Your task to perform on an android device: check android version Image 0: 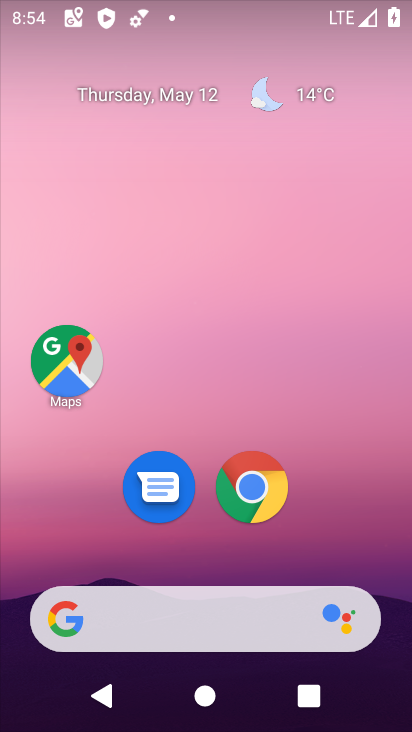
Step 0: press home button
Your task to perform on an android device: check android version Image 1: 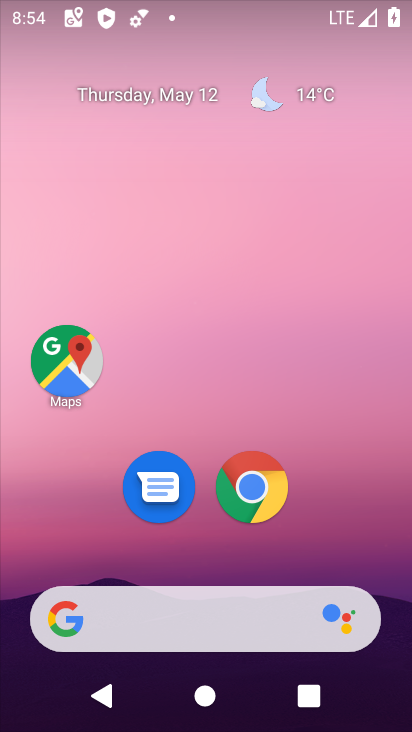
Step 1: drag from (58, 633) to (388, 246)
Your task to perform on an android device: check android version Image 2: 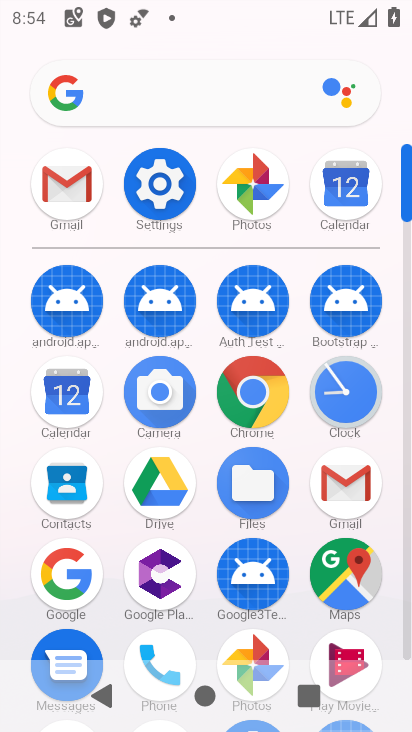
Step 2: click (136, 193)
Your task to perform on an android device: check android version Image 3: 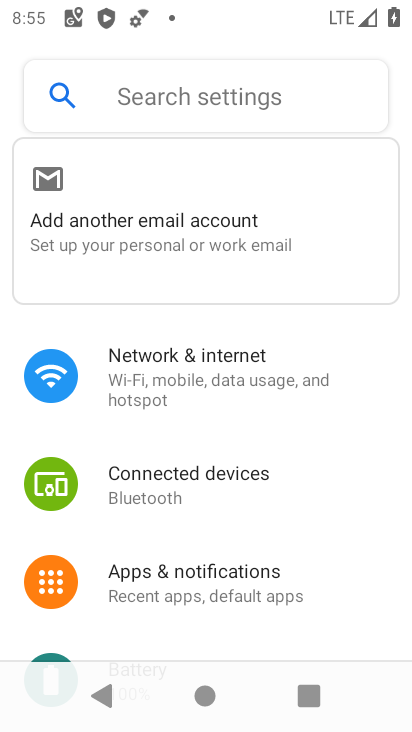
Step 3: drag from (27, 633) to (360, 221)
Your task to perform on an android device: check android version Image 4: 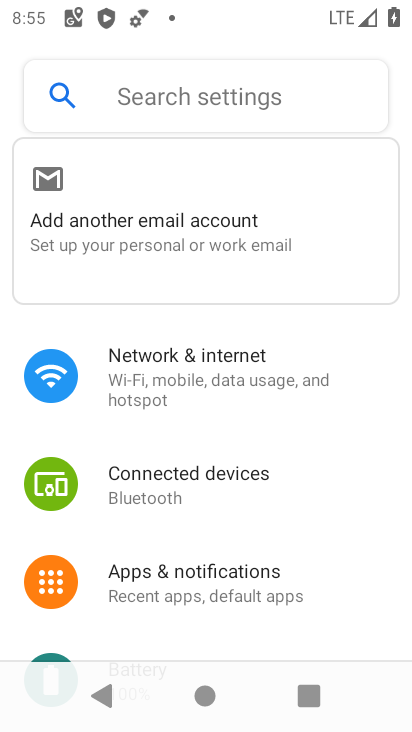
Step 4: drag from (29, 640) to (411, 243)
Your task to perform on an android device: check android version Image 5: 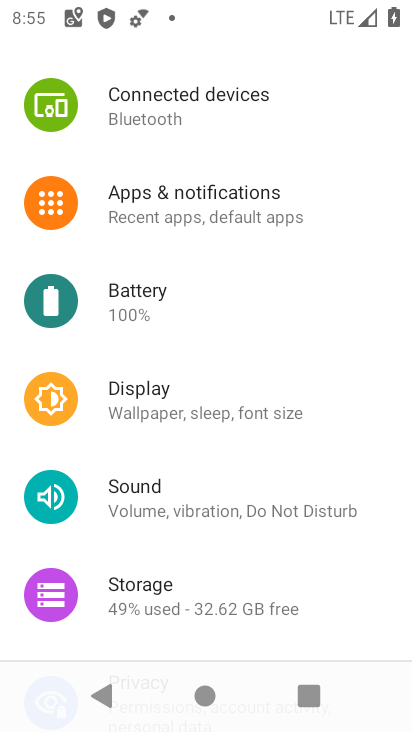
Step 5: drag from (9, 638) to (404, 254)
Your task to perform on an android device: check android version Image 6: 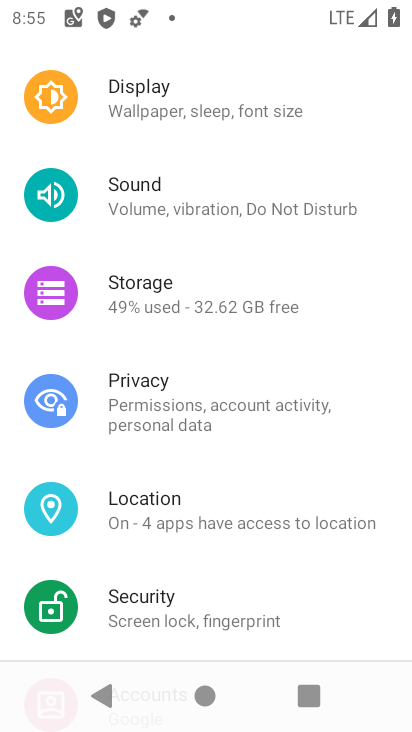
Step 6: drag from (34, 611) to (410, 276)
Your task to perform on an android device: check android version Image 7: 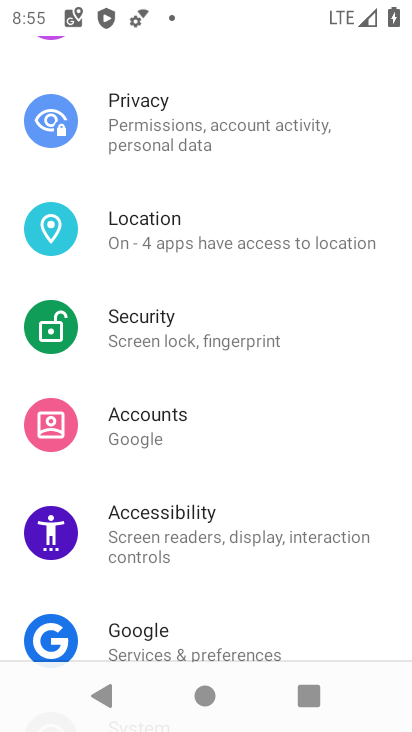
Step 7: drag from (31, 632) to (404, 281)
Your task to perform on an android device: check android version Image 8: 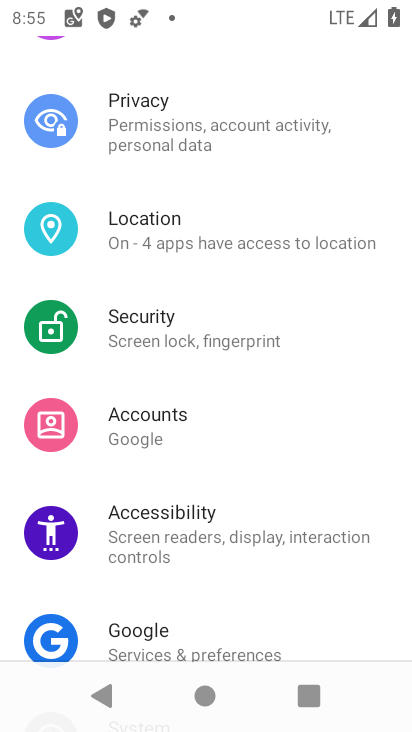
Step 8: drag from (61, 571) to (346, 207)
Your task to perform on an android device: check android version Image 9: 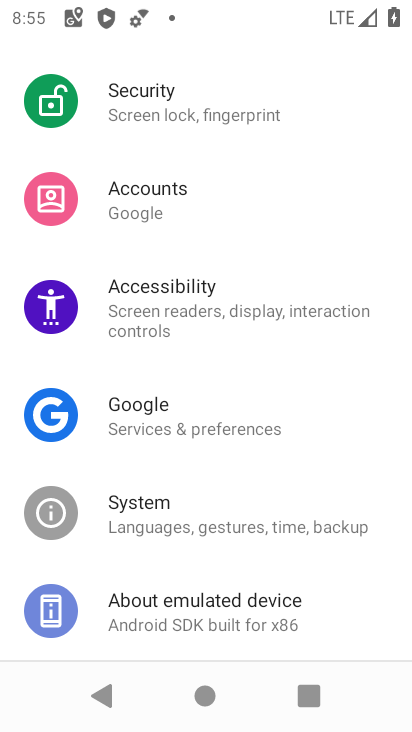
Step 9: click (101, 625)
Your task to perform on an android device: check android version Image 10: 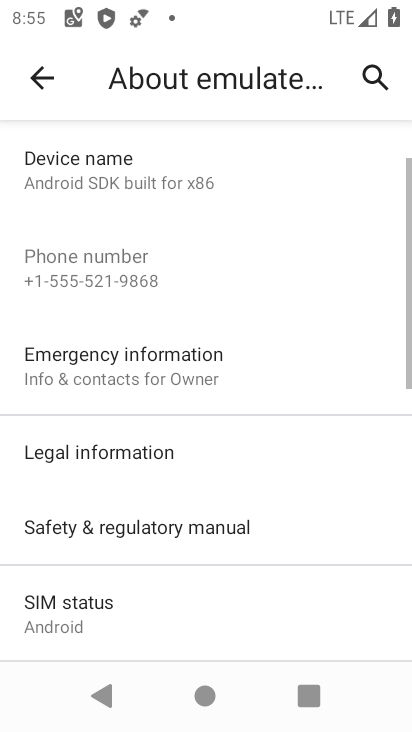
Step 10: drag from (38, 597) to (274, 278)
Your task to perform on an android device: check android version Image 11: 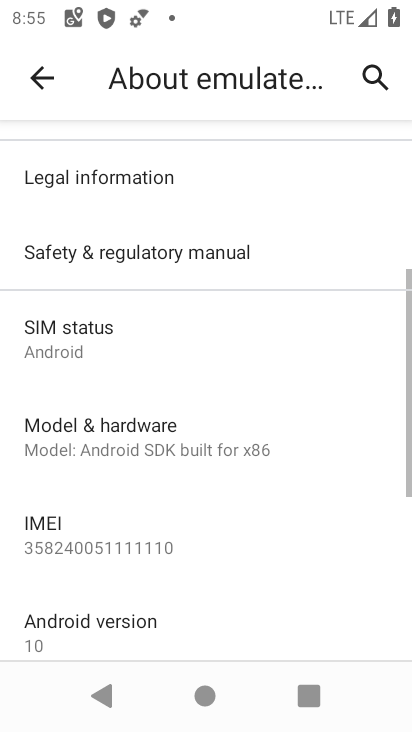
Step 11: click (62, 637)
Your task to perform on an android device: check android version Image 12: 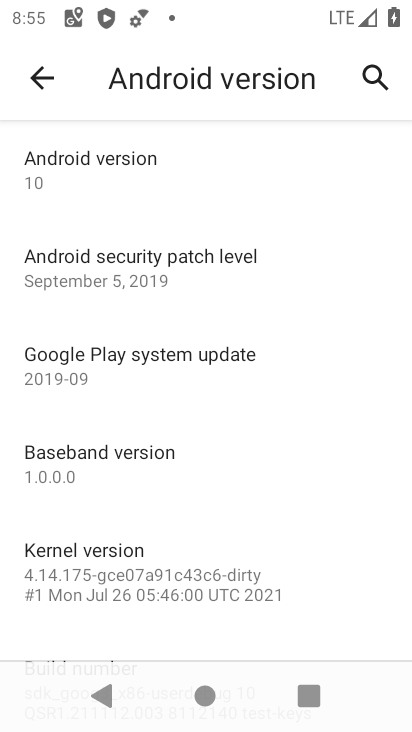
Step 12: task complete